Your task to perform on an android device: set default search engine in the chrome app Image 0: 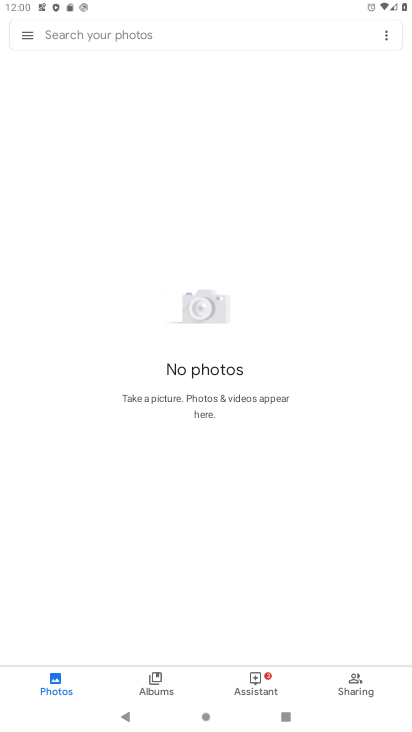
Step 0: press home button
Your task to perform on an android device: set default search engine in the chrome app Image 1: 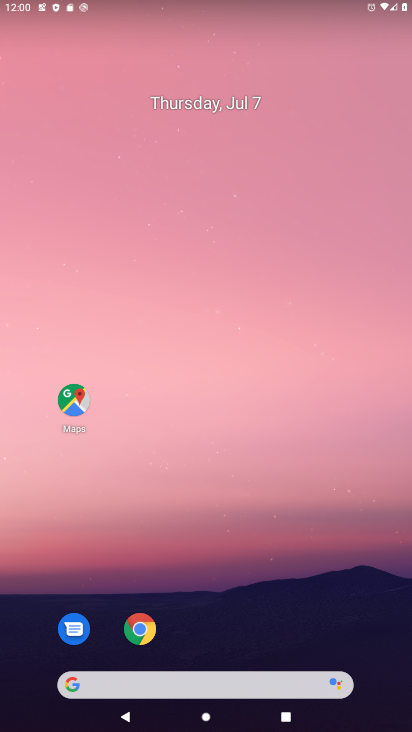
Step 1: click (146, 633)
Your task to perform on an android device: set default search engine in the chrome app Image 2: 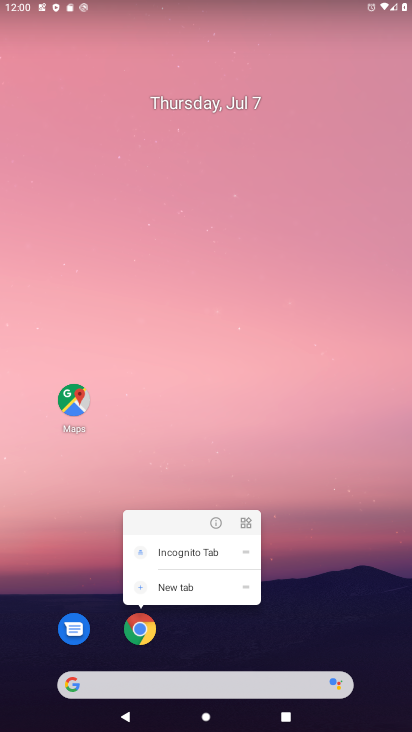
Step 2: click (130, 643)
Your task to perform on an android device: set default search engine in the chrome app Image 3: 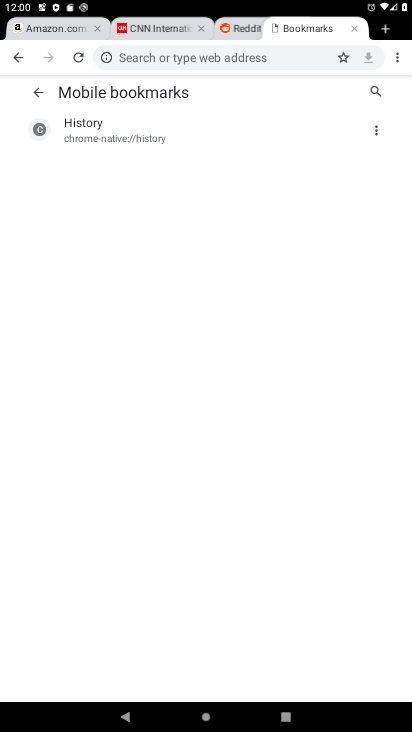
Step 3: click (394, 54)
Your task to perform on an android device: set default search engine in the chrome app Image 4: 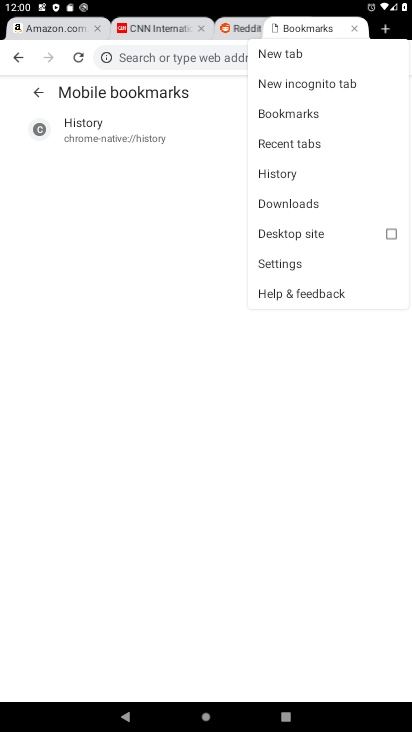
Step 4: click (291, 256)
Your task to perform on an android device: set default search engine in the chrome app Image 5: 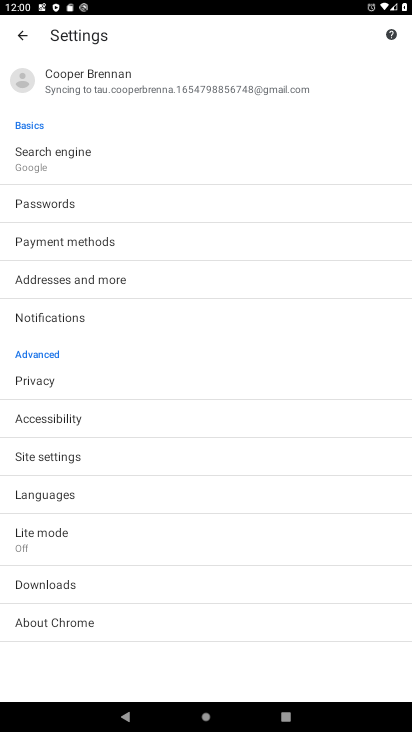
Step 5: click (168, 166)
Your task to perform on an android device: set default search engine in the chrome app Image 6: 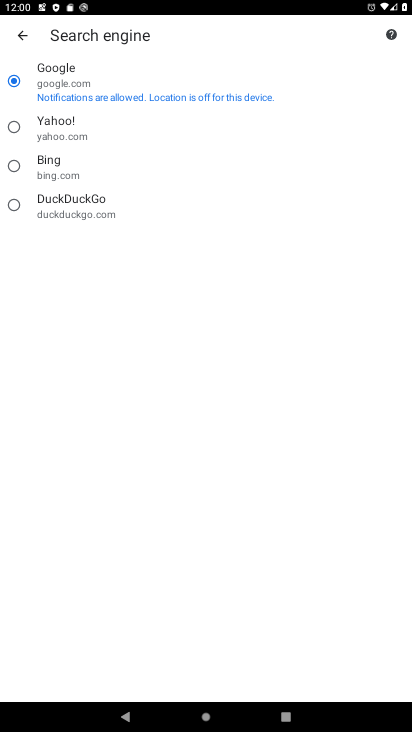
Step 6: task complete